Your task to perform on an android device: Turn on the flashlight Image 0: 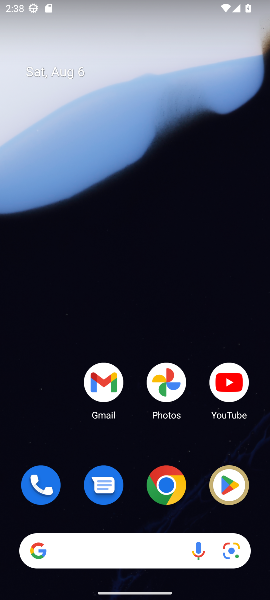
Step 0: press home button
Your task to perform on an android device: Turn on the flashlight Image 1: 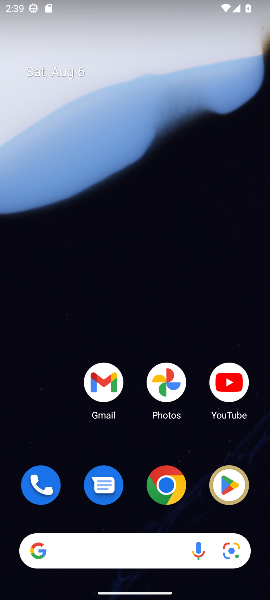
Step 1: drag from (134, 451) to (135, 26)
Your task to perform on an android device: Turn on the flashlight Image 2: 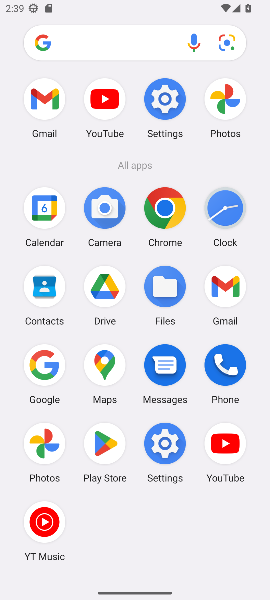
Step 2: click (163, 95)
Your task to perform on an android device: Turn on the flashlight Image 3: 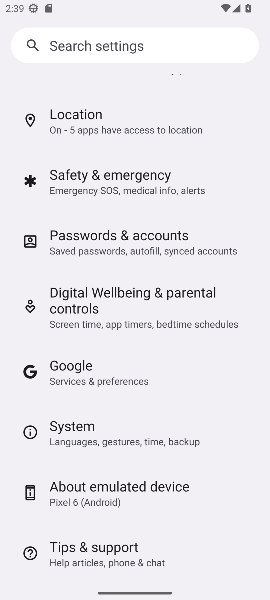
Step 3: click (97, 41)
Your task to perform on an android device: Turn on the flashlight Image 4: 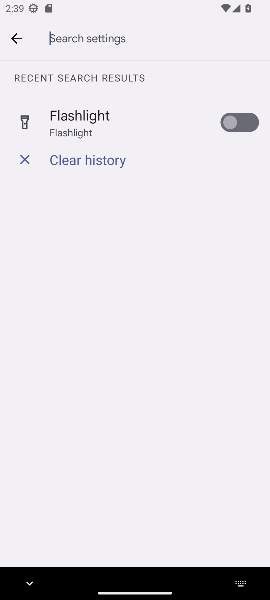
Step 4: click (241, 118)
Your task to perform on an android device: Turn on the flashlight Image 5: 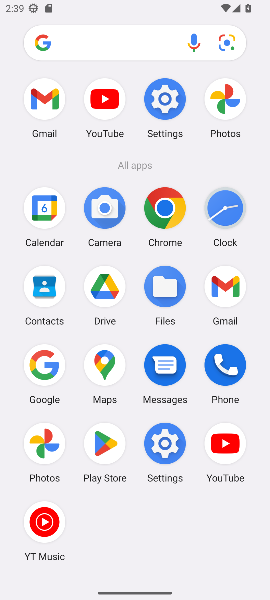
Step 5: task complete